Your task to perform on an android device: open app "Messenger Lite" (install if not already installed) Image 0: 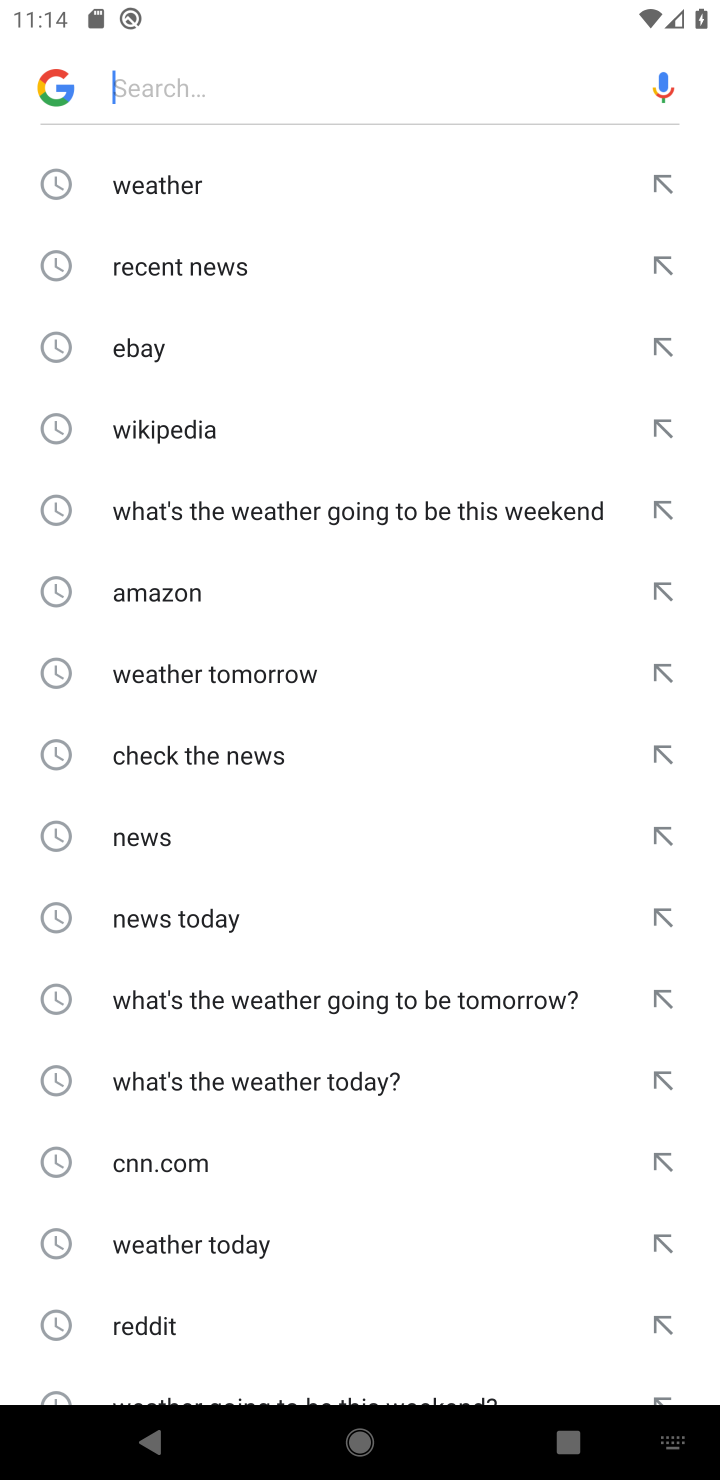
Step 0: press home button
Your task to perform on an android device: open app "Messenger Lite" (install if not already installed) Image 1: 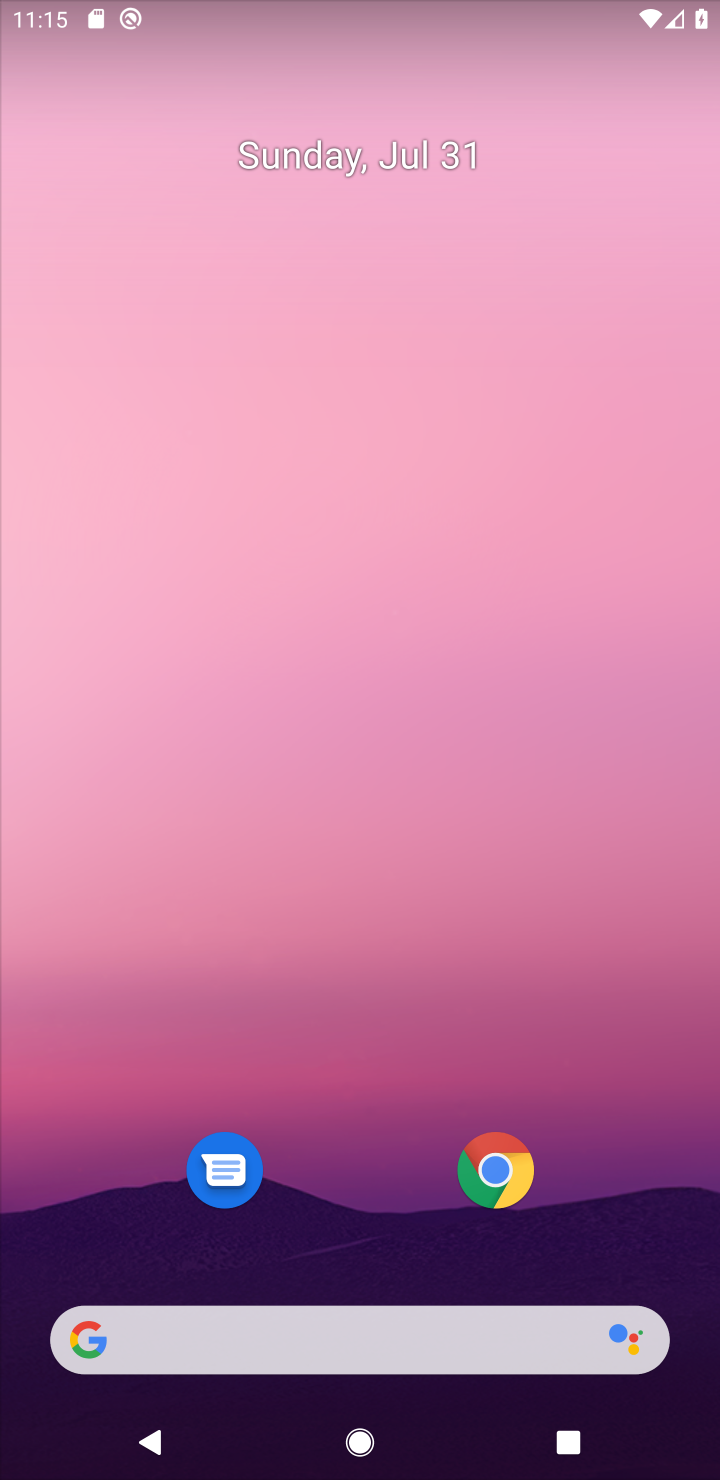
Step 1: drag from (689, 1243) to (437, 93)
Your task to perform on an android device: open app "Messenger Lite" (install if not already installed) Image 2: 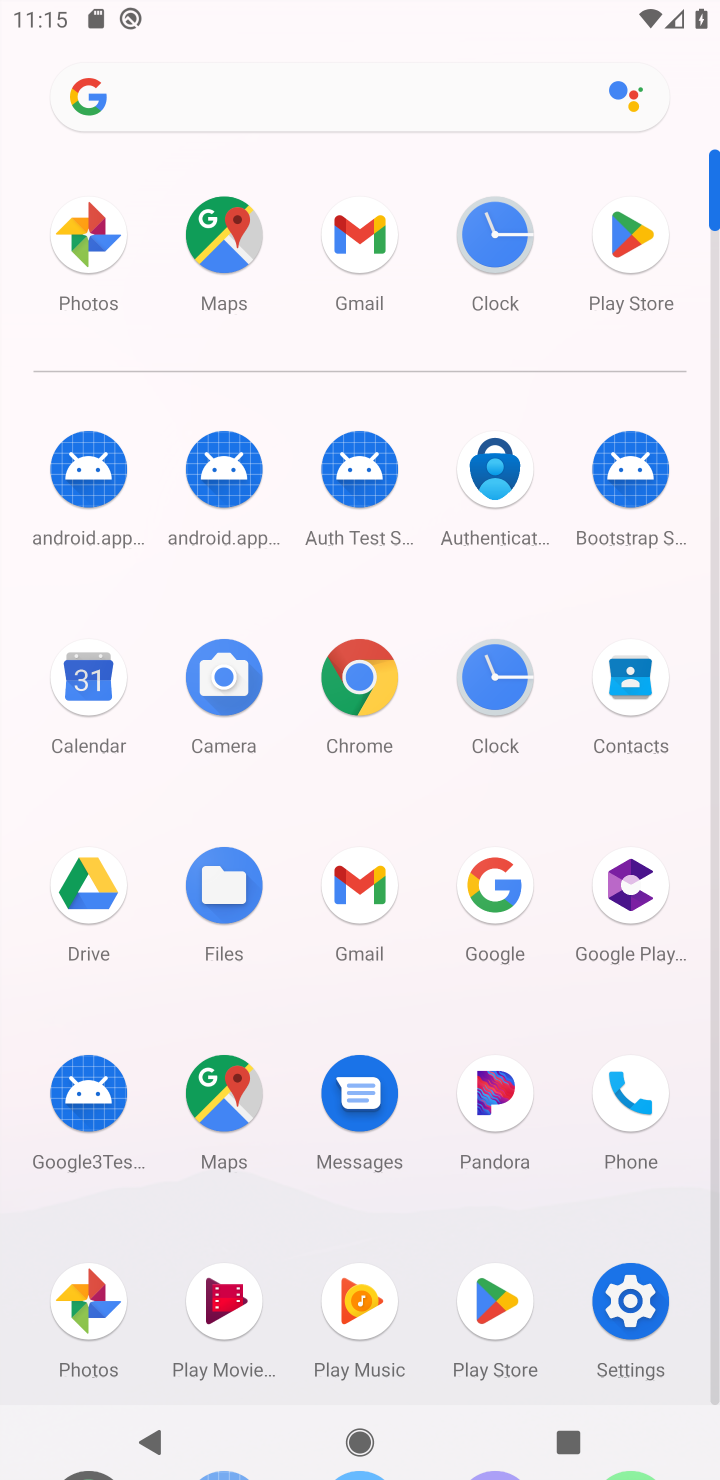
Step 2: click (632, 229)
Your task to perform on an android device: open app "Messenger Lite" (install if not already installed) Image 3: 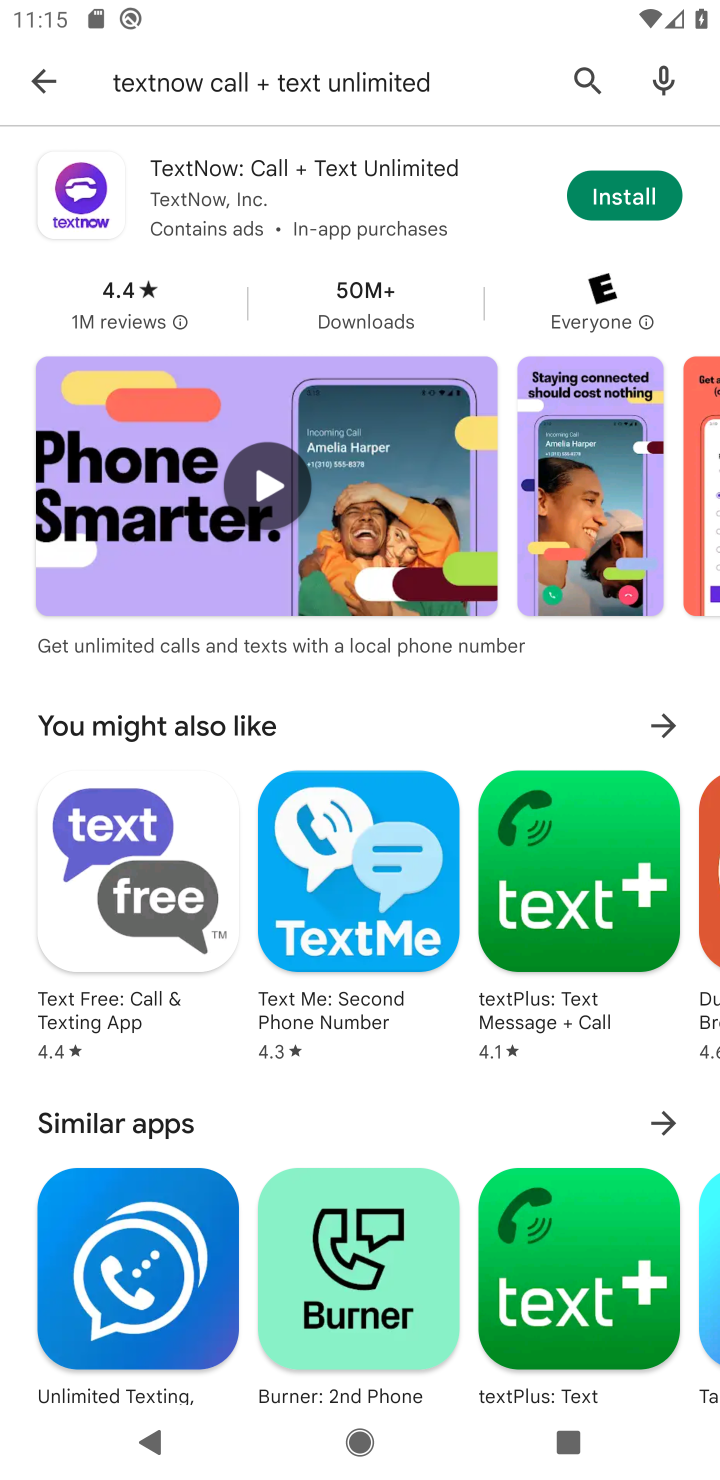
Step 3: press back button
Your task to perform on an android device: open app "Messenger Lite" (install if not already installed) Image 4: 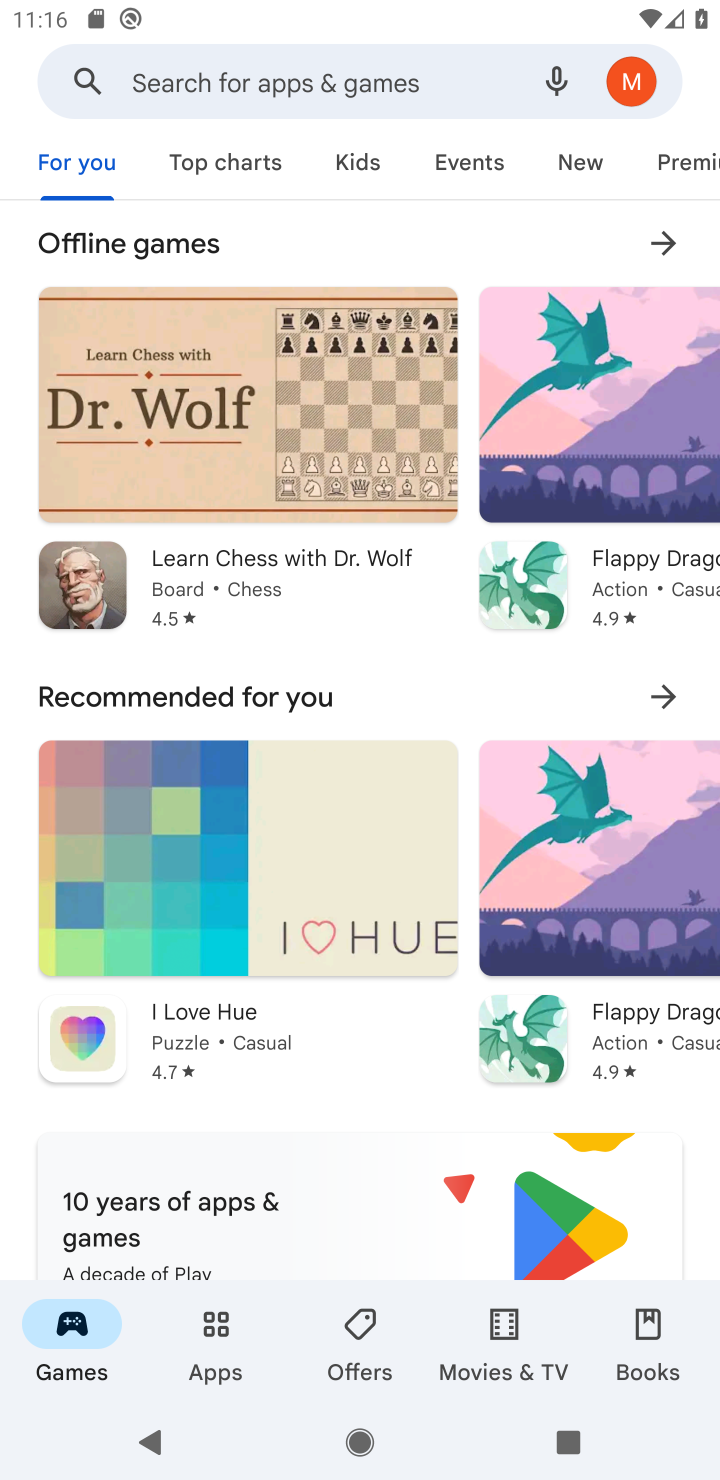
Step 4: click (198, 79)
Your task to perform on an android device: open app "Messenger Lite" (install if not already installed) Image 5: 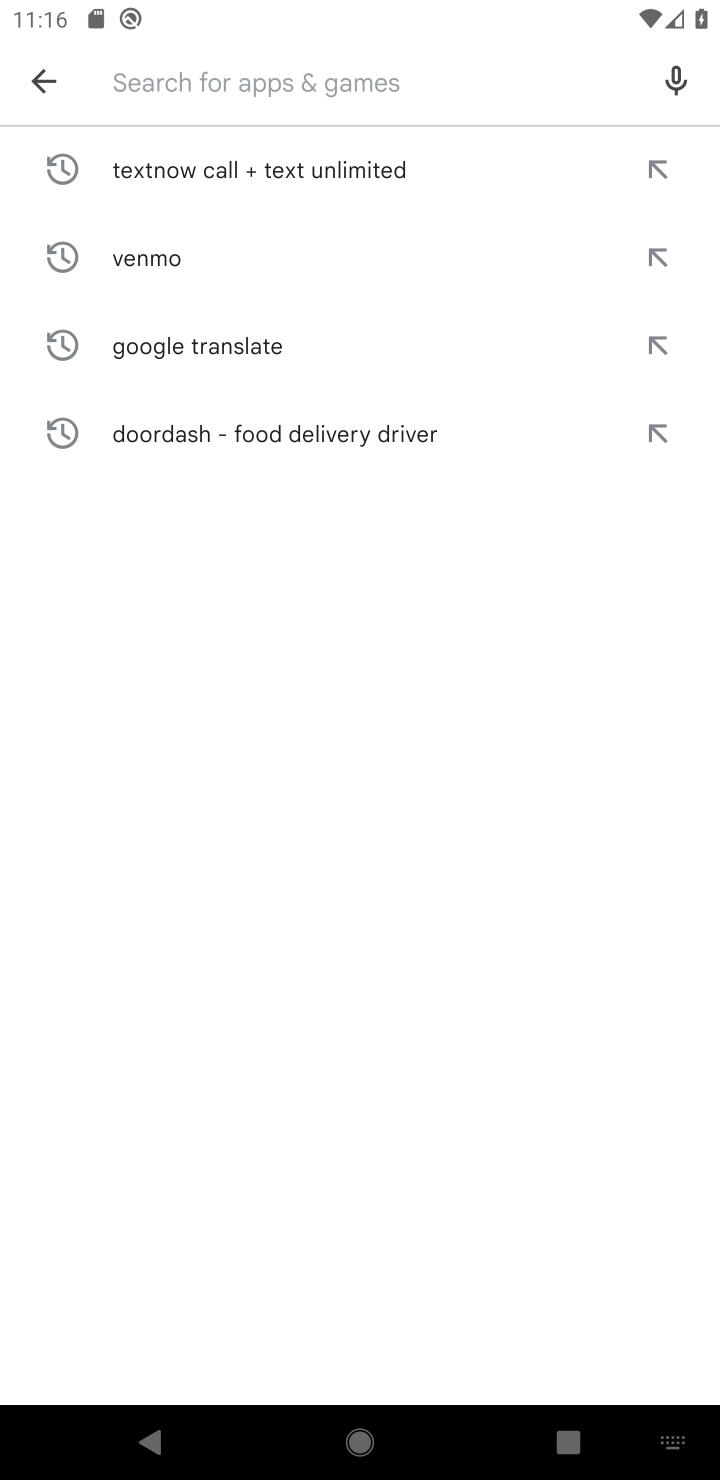
Step 5: type "Messenger Lite"
Your task to perform on an android device: open app "Messenger Lite" (install if not already installed) Image 6: 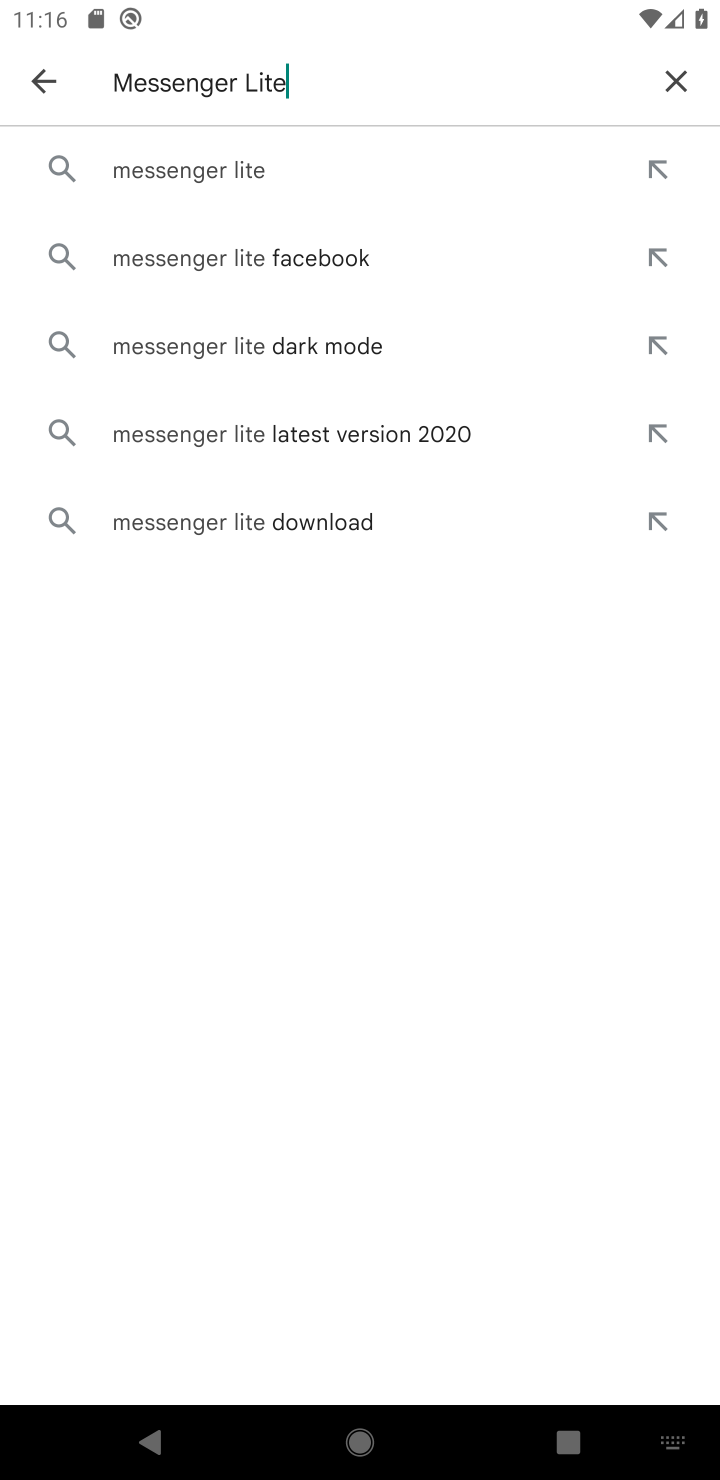
Step 6: click (195, 167)
Your task to perform on an android device: open app "Messenger Lite" (install if not already installed) Image 7: 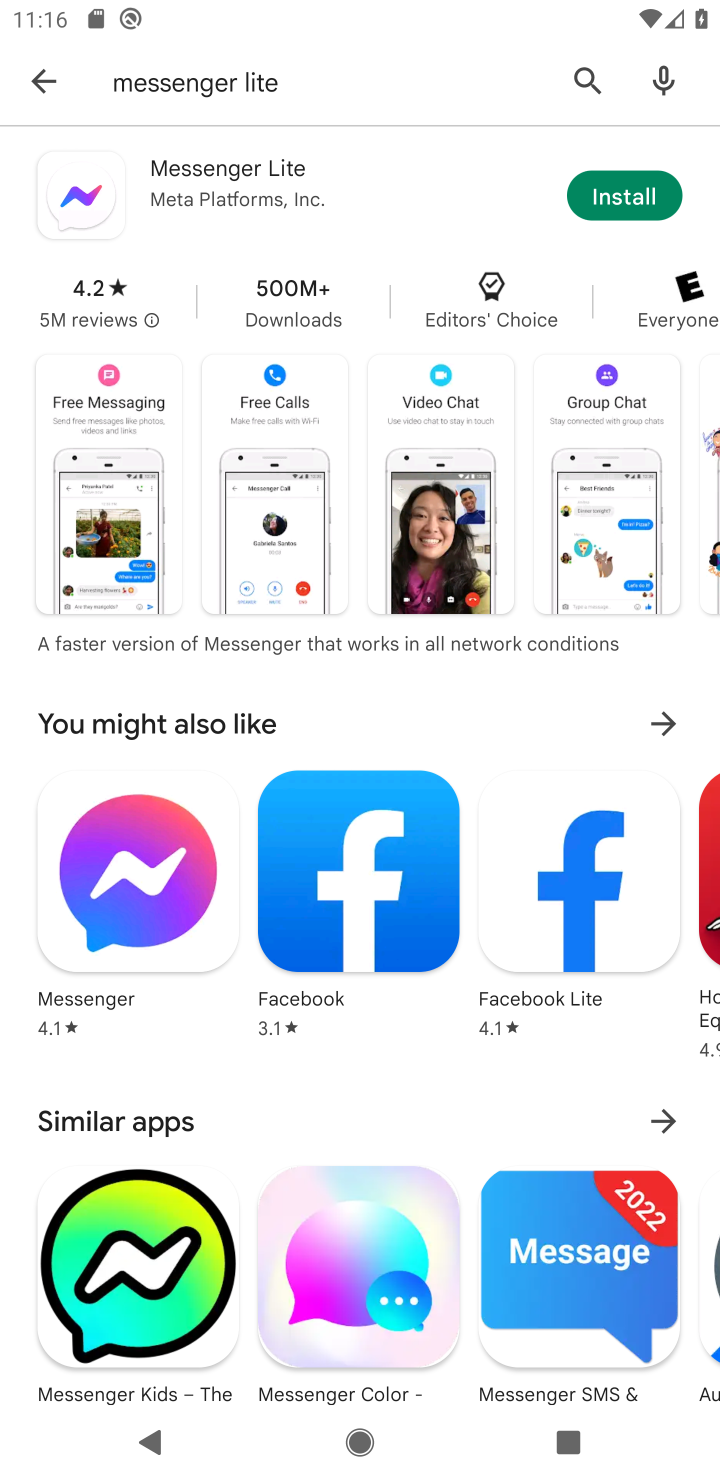
Step 7: task complete